Your task to perform on an android device: uninstall "NewsBreak: Local News & Alerts" Image 0: 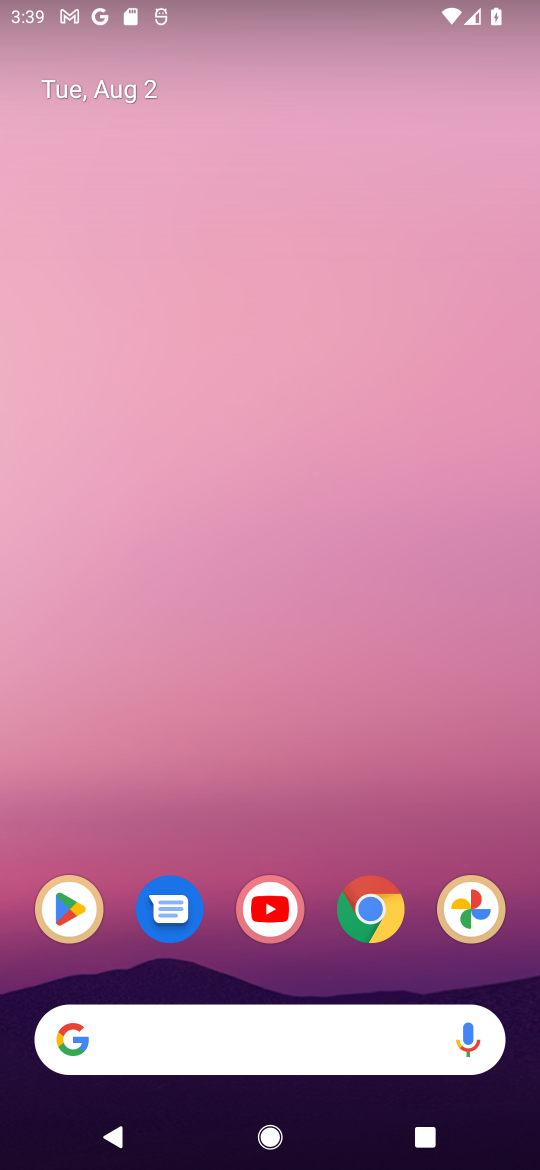
Step 0: drag from (214, 905) to (31, 708)
Your task to perform on an android device: uninstall "NewsBreak: Local News & Alerts" Image 1: 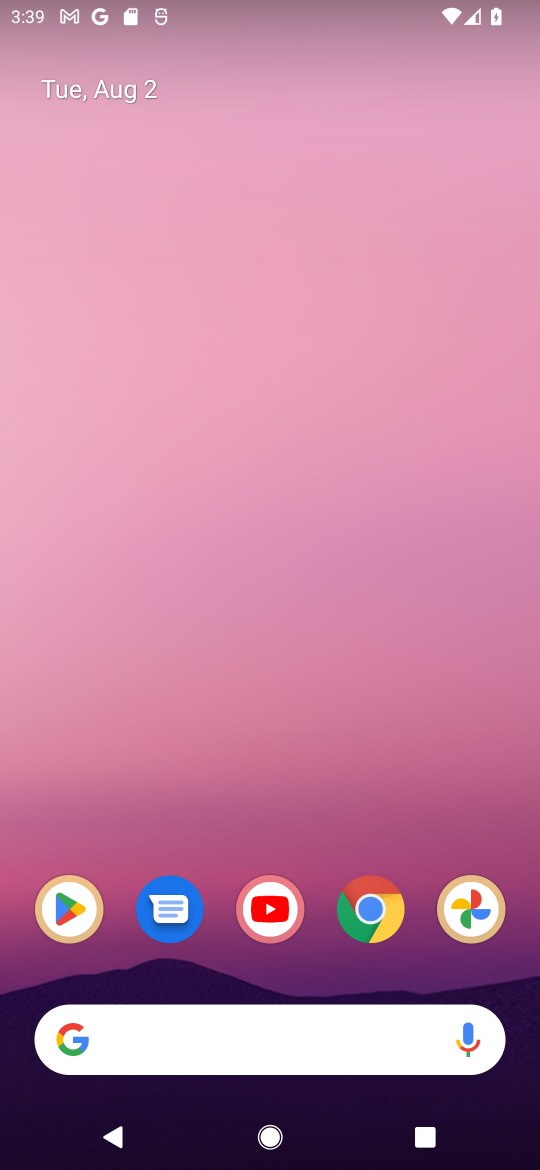
Step 1: click (65, 909)
Your task to perform on an android device: uninstall "NewsBreak: Local News & Alerts" Image 2: 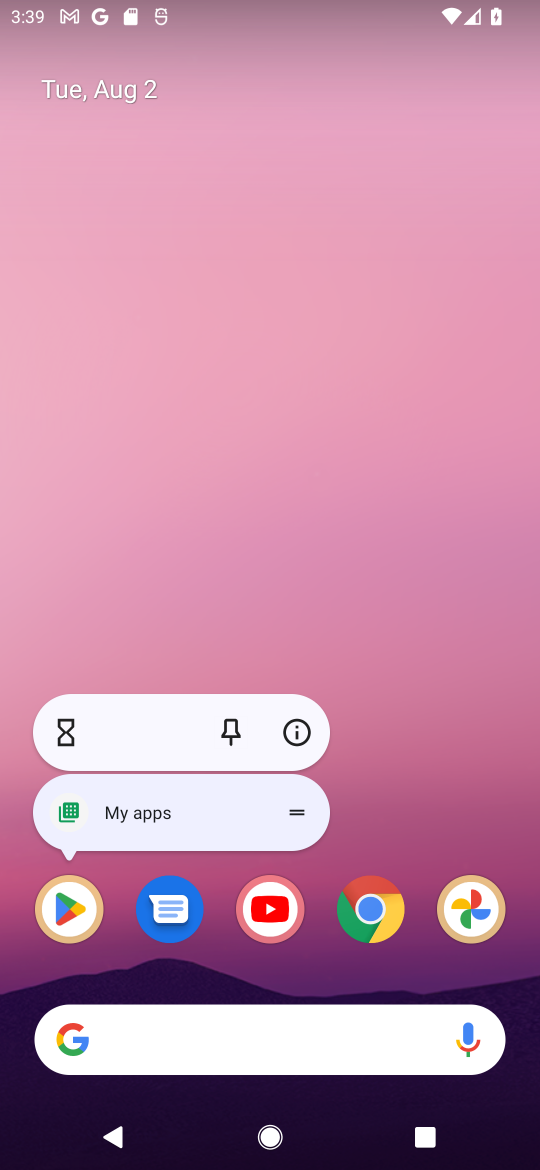
Step 2: click (309, 724)
Your task to perform on an android device: uninstall "NewsBreak: Local News & Alerts" Image 3: 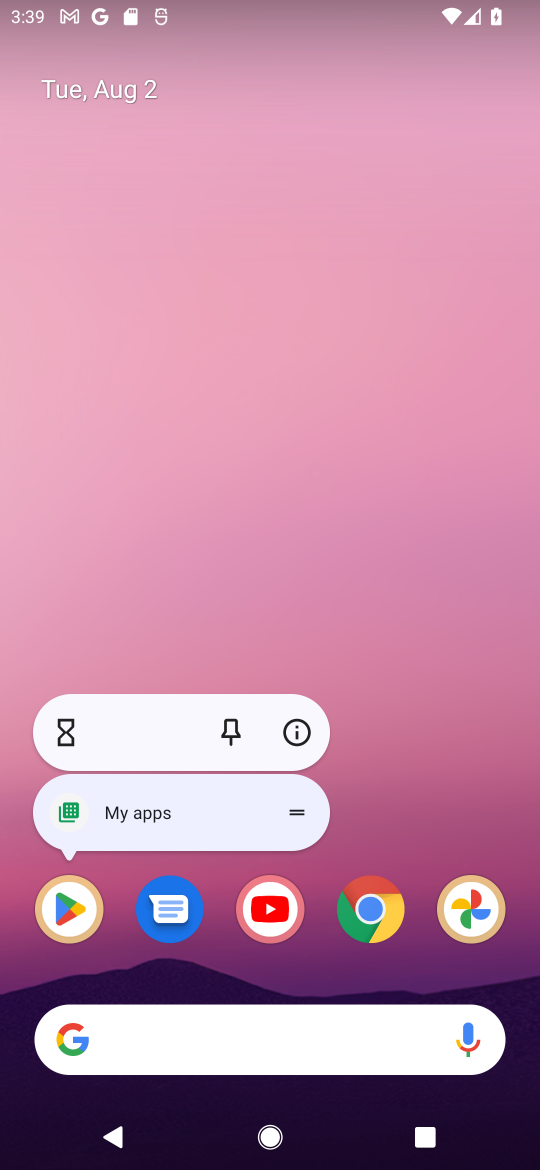
Step 3: click (302, 721)
Your task to perform on an android device: uninstall "NewsBreak: Local News & Alerts" Image 4: 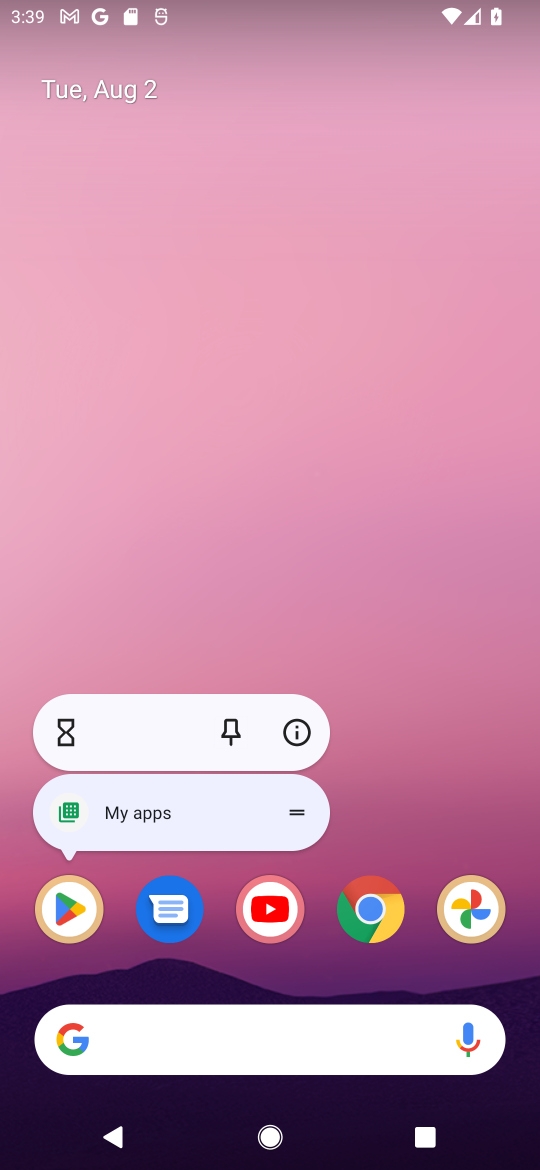
Step 4: click (289, 723)
Your task to perform on an android device: uninstall "NewsBreak: Local News & Alerts" Image 5: 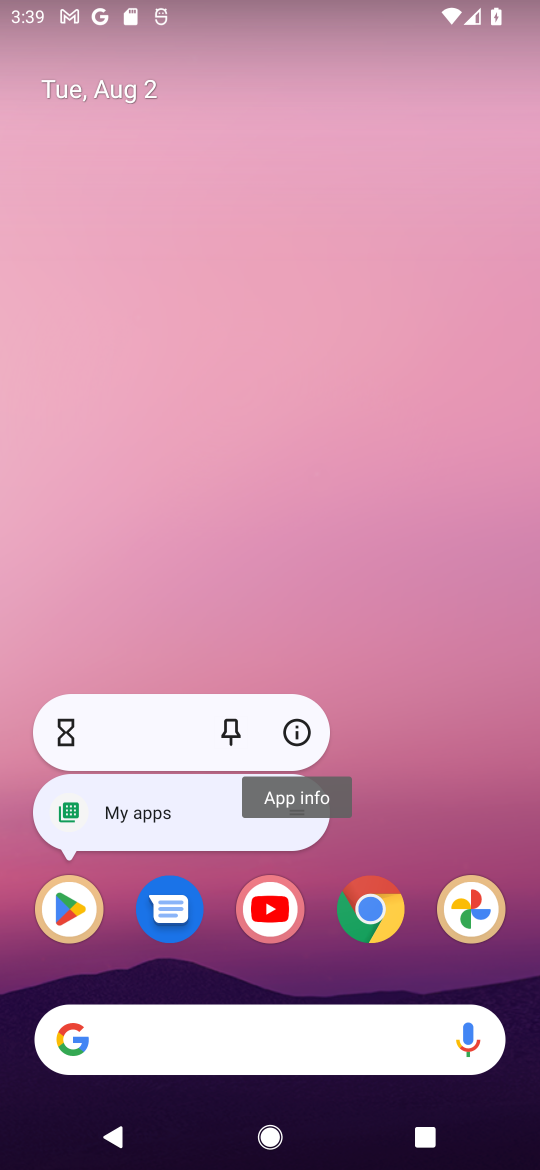
Step 5: click (289, 723)
Your task to perform on an android device: uninstall "NewsBreak: Local News & Alerts" Image 6: 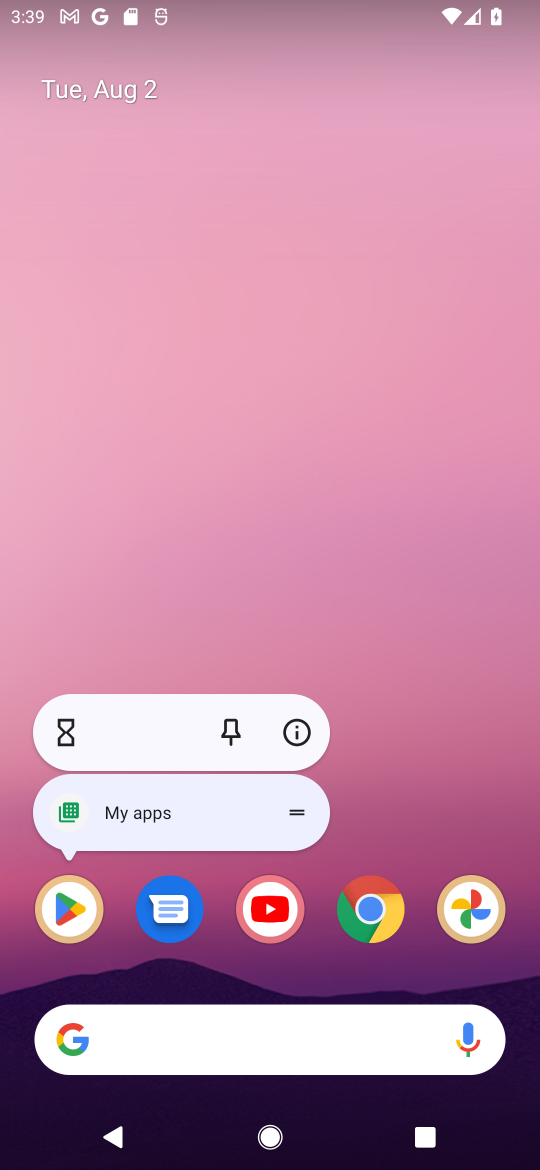
Step 6: click (430, 550)
Your task to perform on an android device: uninstall "NewsBreak: Local News & Alerts" Image 7: 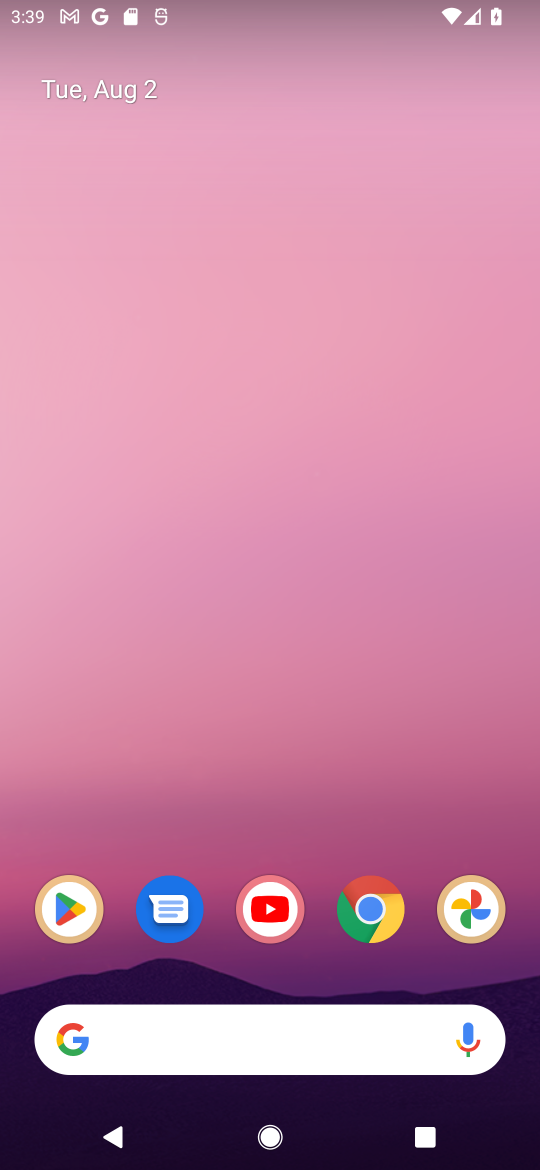
Step 7: drag from (232, 952) to (340, 181)
Your task to perform on an android device: uninstall "NewsBreak: Local News & Alerts" Image 8: 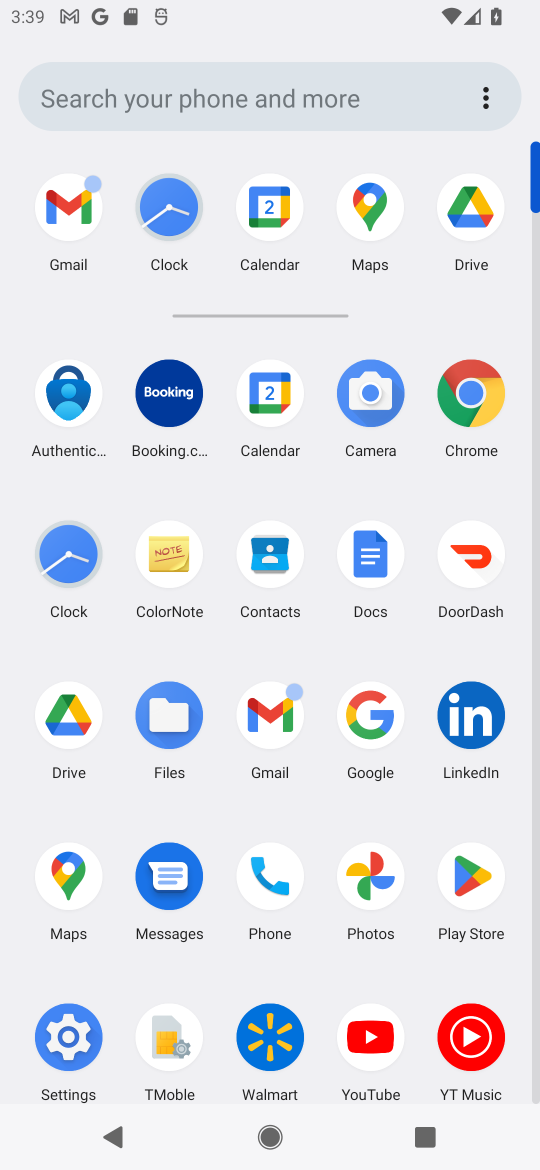
Step 8: click (478, 874)
Your task to perform on an android device: uninstall "NewsBreak: Local News & Alerts" Image 9: 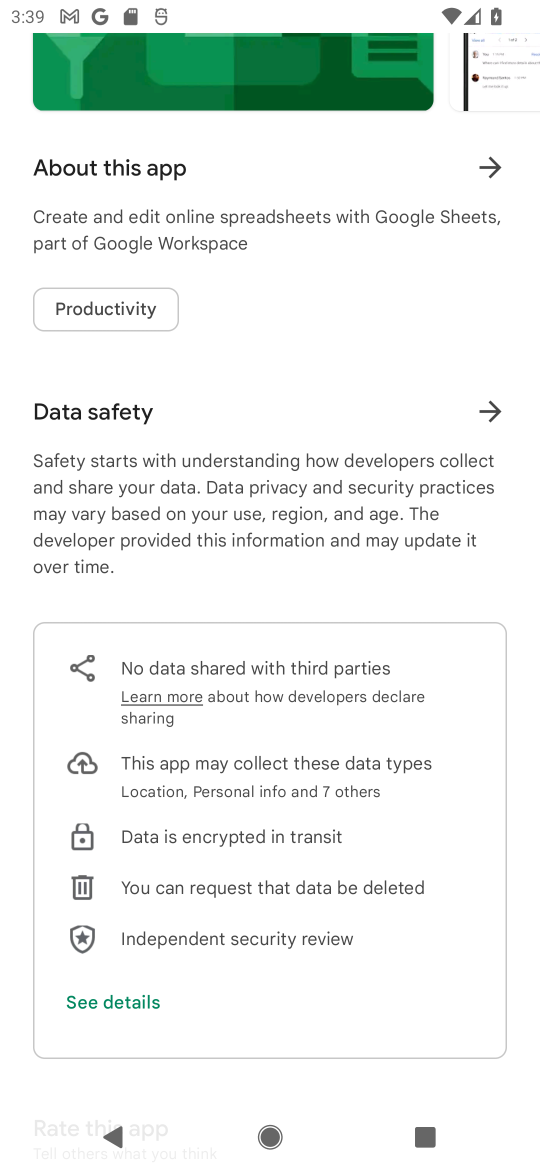
Step 9: drag from (290, 227) to (238, 1142)
Your task to perform on an android device: uninstall "NewsBreak: Local News & Alerts" Image 10: 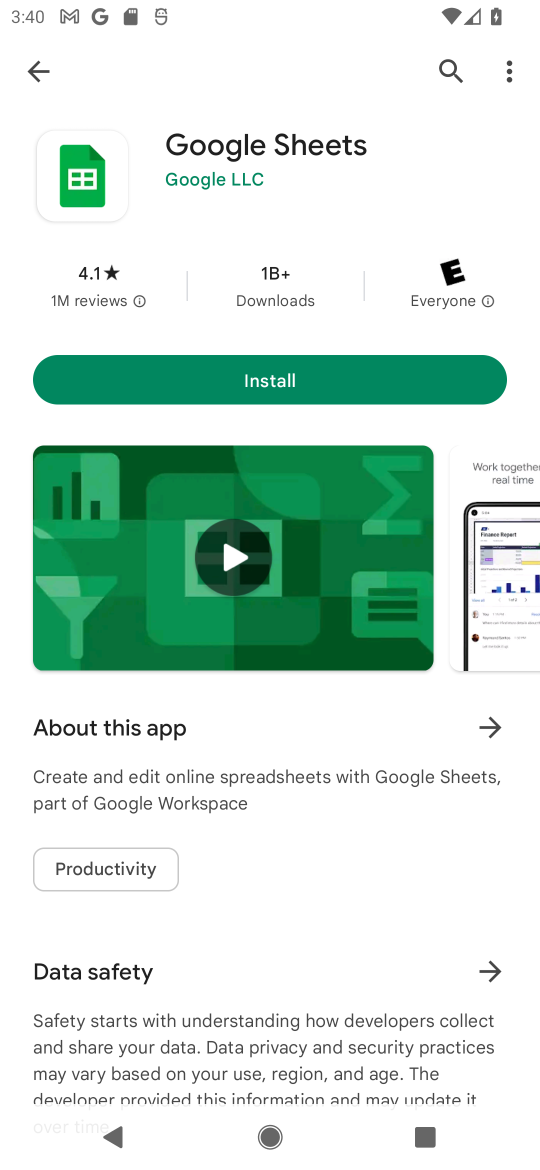
Step 10: click (449, 86)
Your task to perform on an android device: uninstall "NewsBreak: Local News & Alerts" Image 11: 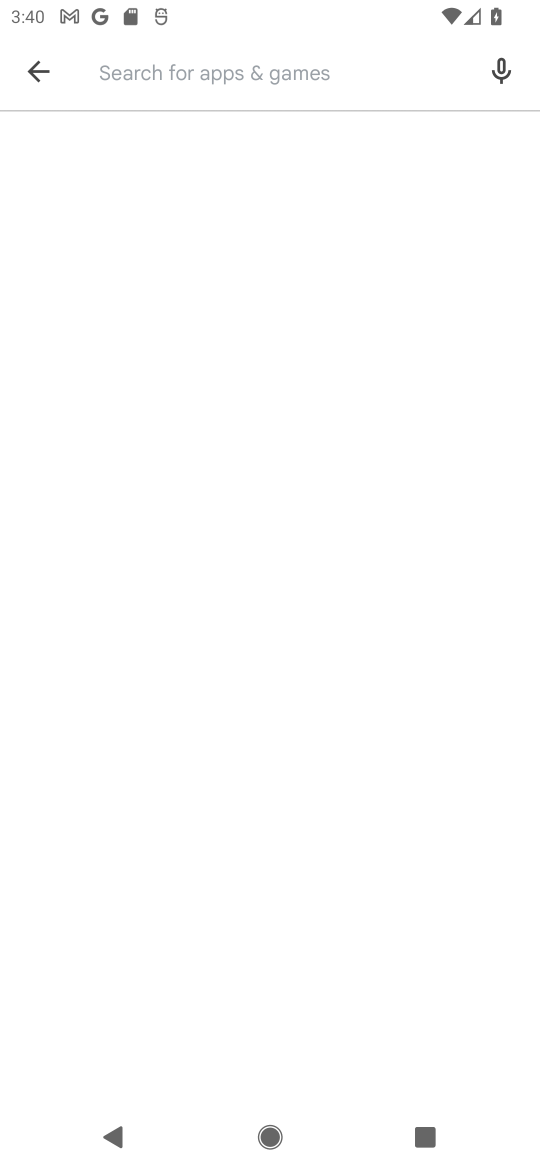
Step 11: click (449, 85)
Your task to perform on an android device: uninstall "NewsBreak: Local News & Alerts" Image 12: 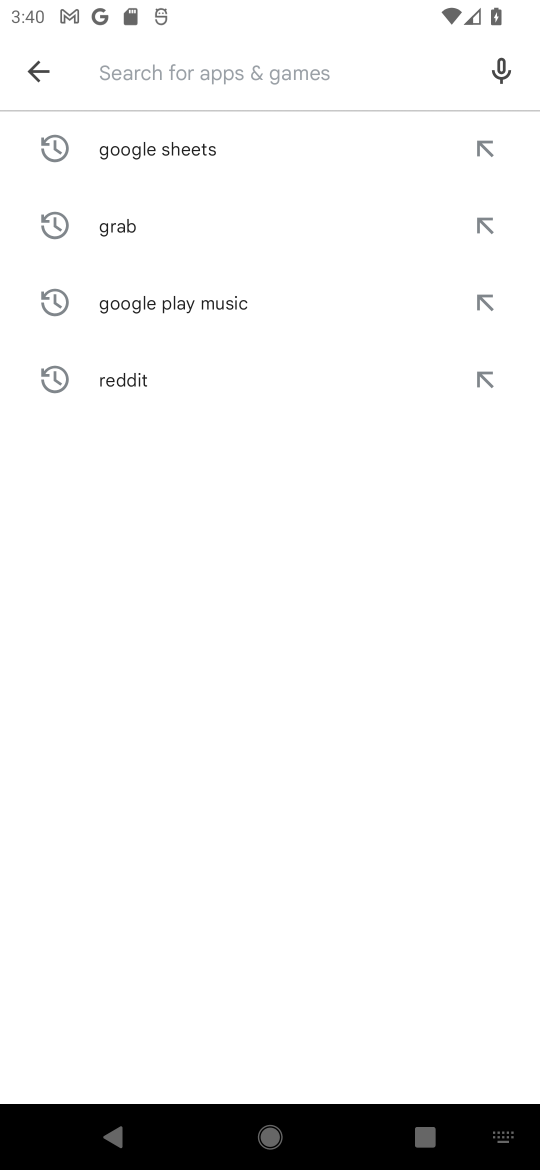
Step 12: type "NewsBreak: Local News & Alerts"
Your task to perform on an android device: uninstall "NewsBreak: Local News & Alerts" Image 13: 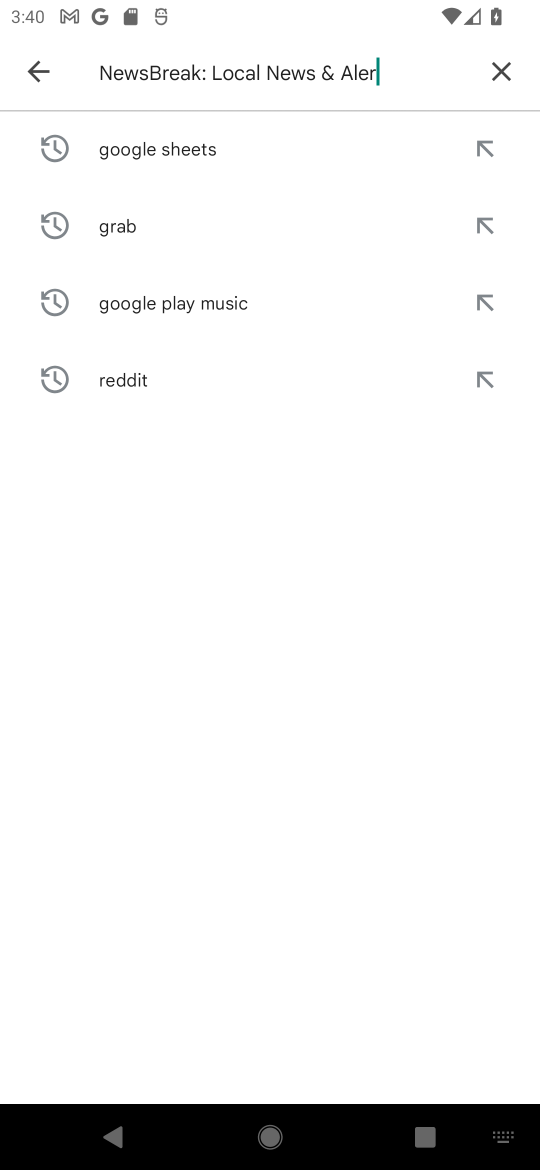
Step 13: type ""
Your task to perform on an android device: uninstall "NewsBreak: Local News & Alerts" Image 14: 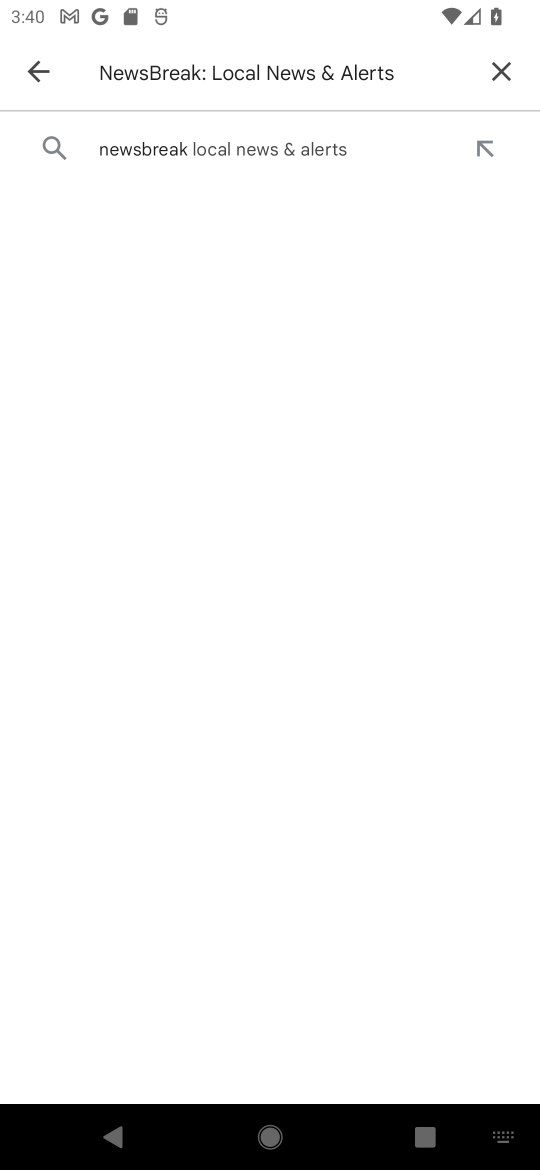
Step 14: click (136, 142)
Your task to perform on an android device: uninstall "NewsBreak: Local News & Alerts" Image 15: 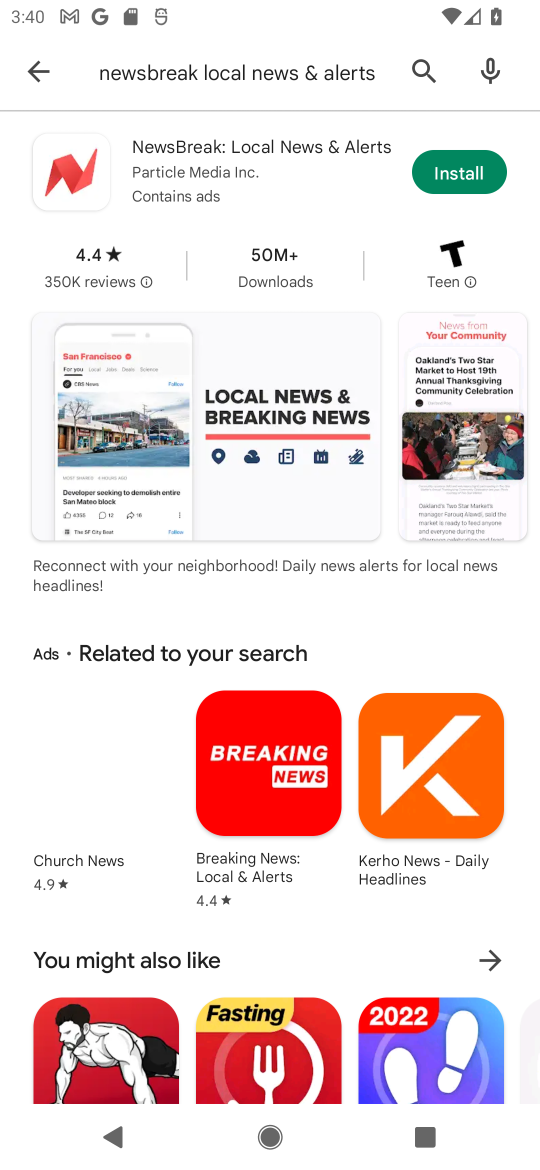
Step 15: click (170, 149)
Your task to perform on an android device: uninstall "NewsBreak: Local News & Alerts" Image 16: 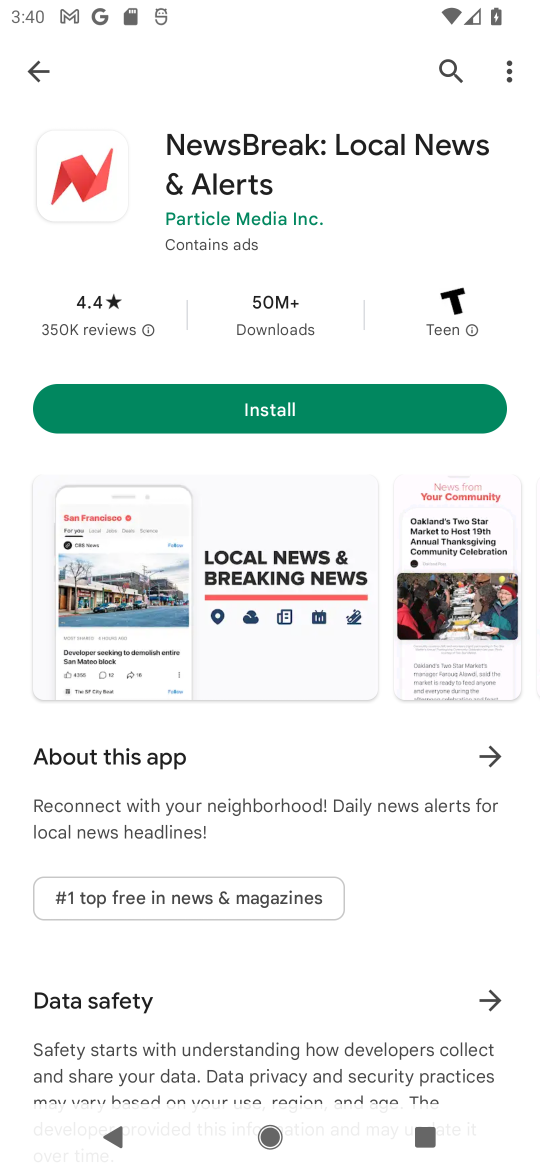
Step 16: task complete